Your task to perform on an android device: Go to Yahoo.com Image 0: 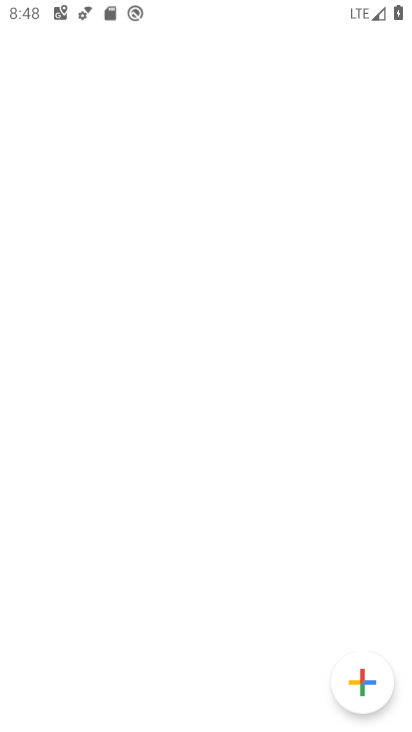
Step 0: click (255, 339)
Your task to perform on an android device: Go to Yahoo.com Image 1: 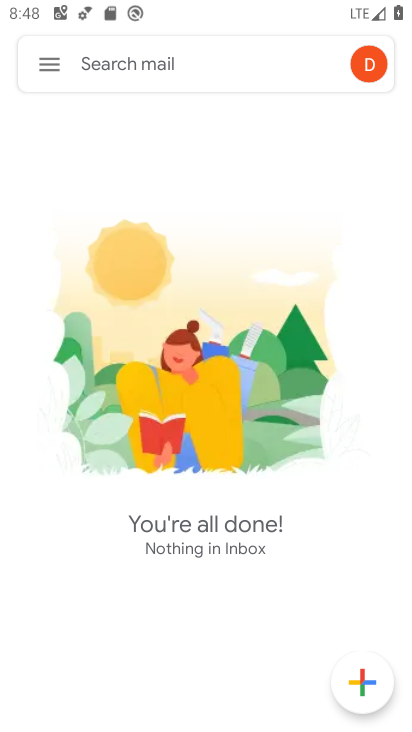
Step 1: press home button
Your task to perform on an android device: Go to Yahoo.com Image 2: 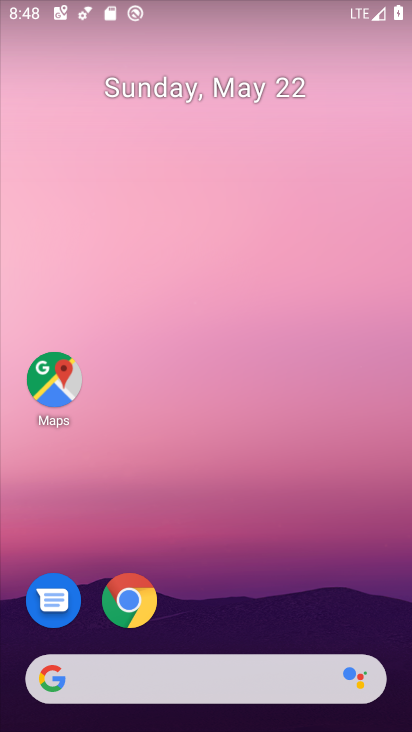
Step 2: click (124, 601)
Your task to perform on an android device: Go to Yahoo.com Image 3: 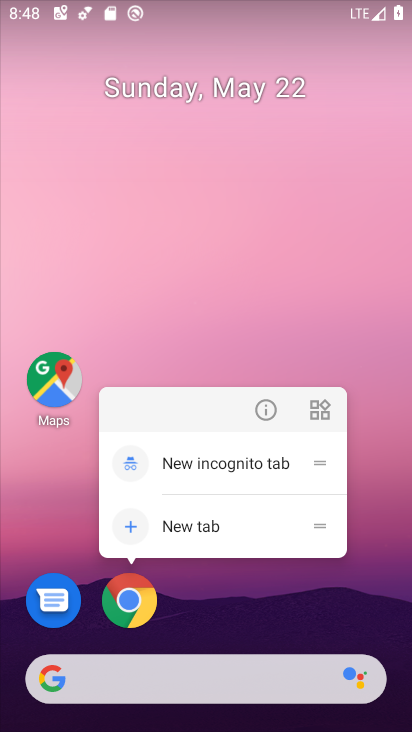
Step 3: click (124, 601)
Your task to perform on an android device: Go to Yahoo.com Image 4: 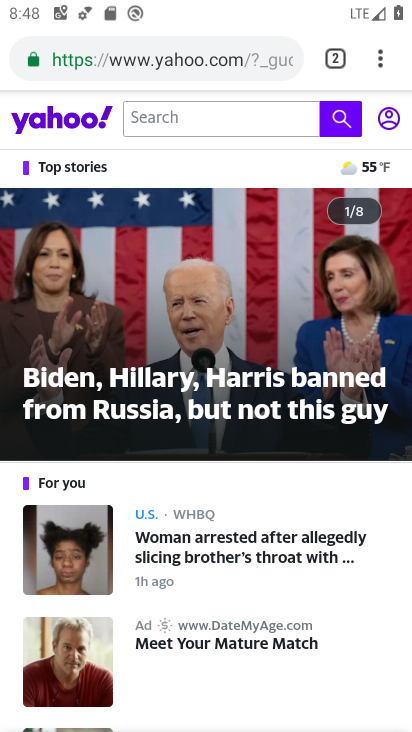
Step 4: task complete